Your task to perform on an android device: Open Youtube and go to the subscriptions tab Image 0: 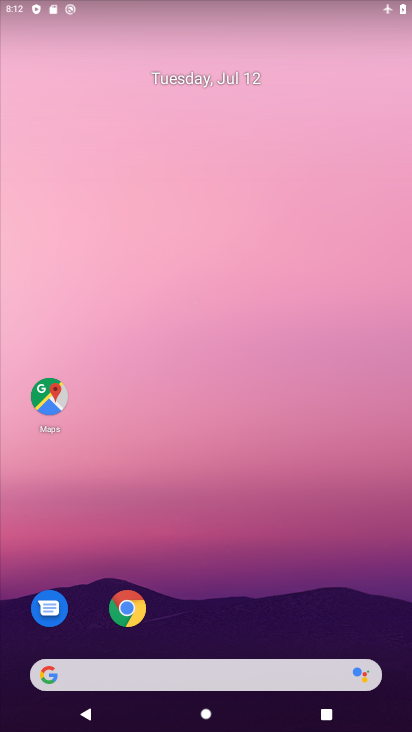
Step 0: drag from (213, 629) to (157, 10)
Your task to perform on an android device: Open Youtube and go to the subscriptions tab Image 1: 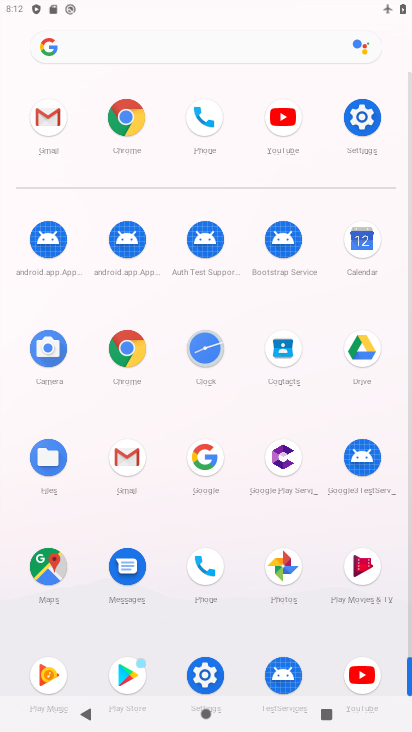
Step 1: click (366, 679)
Your task to perform on an android device: Open Youtube and go to the subscriptions tab Image 2: 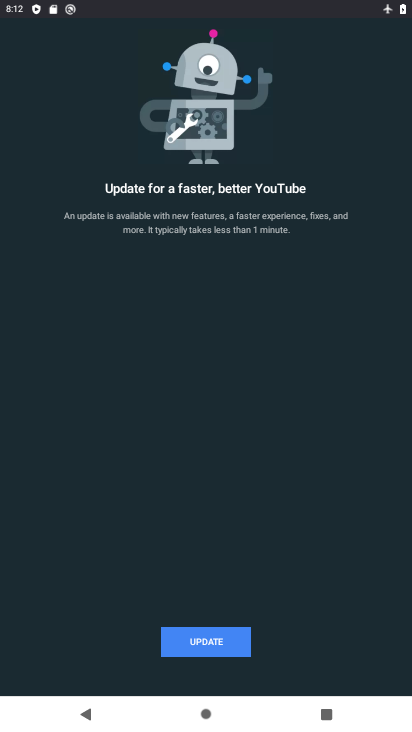
Step 2: click (190, 643)
Your task to perform on an android device: Open Youtube and go to the subscriptions tab Image 3: 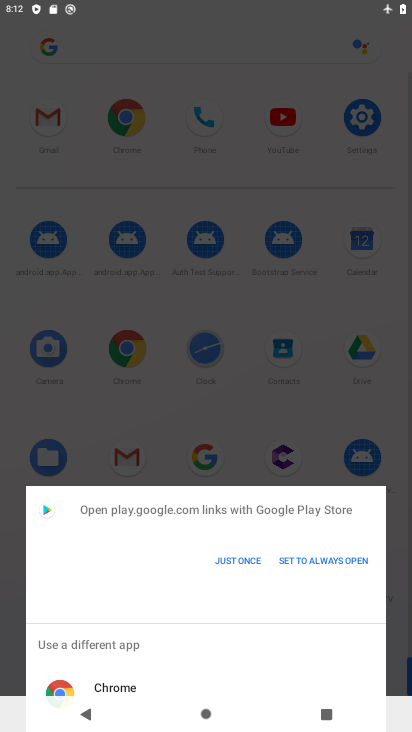
Step 3: click (235, 546)
Your task to perform on an android device: Open Youtube and go to the subscriptions tab Image 4: 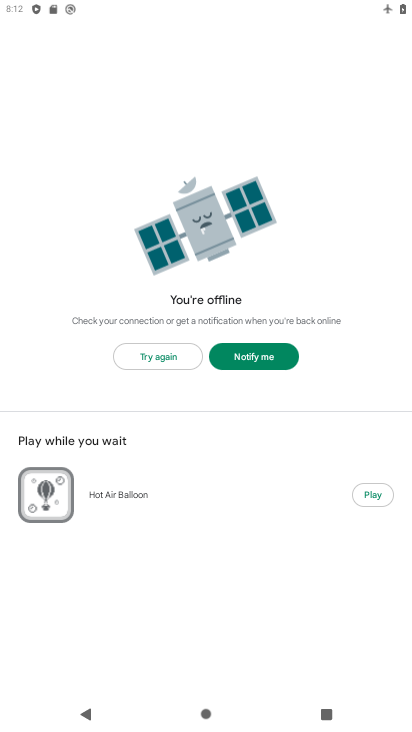
Step 4: click (172, 364)
Your task to perform on an android device: Open Youtube and go to the subscriptions tab Image 5: 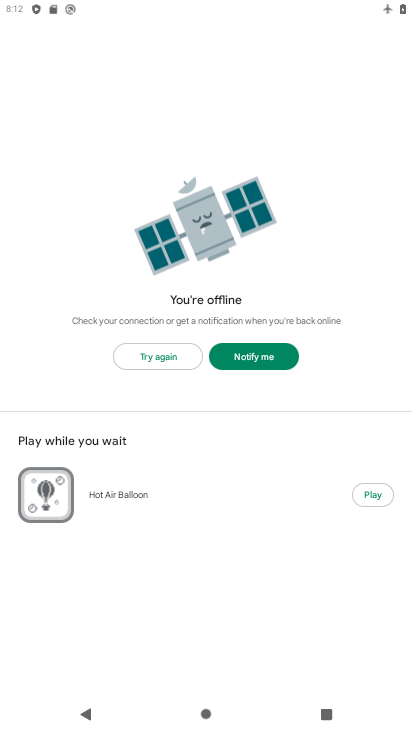
Step 5: task complete